Your task to perform on an android device: visit the assistant section in the google photos Image 0: 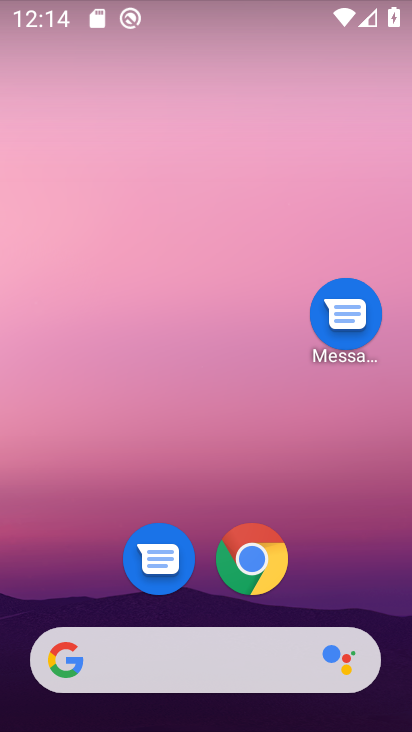
Step 0: drag from (344, 585) to (377, 144)
Your task to perform on an android device: visit the assistant section in the google photos Image 1: 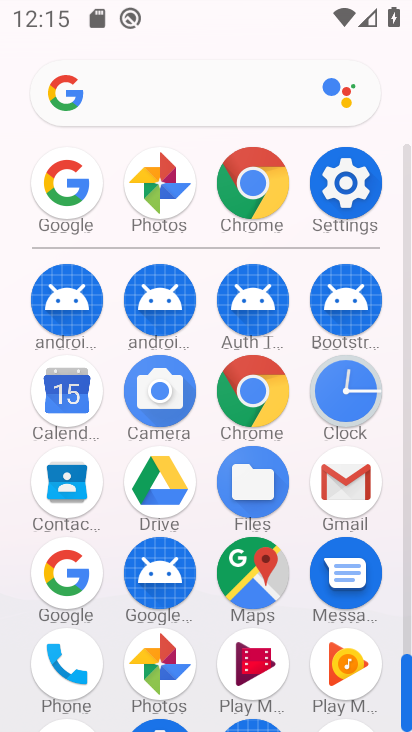
Step 1: click (169, 198)
Your task to perform on an android device: visit the assistant section in the google photos Image 2: 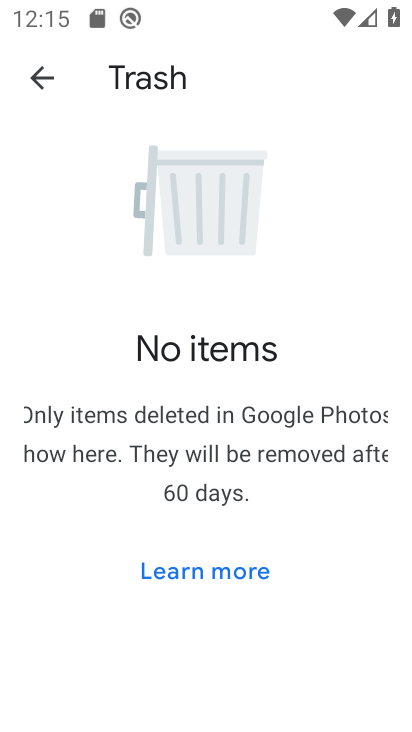
Step 2: press back button
Your task to perform on an android device: visit the assistant section in the google photos Image 3: 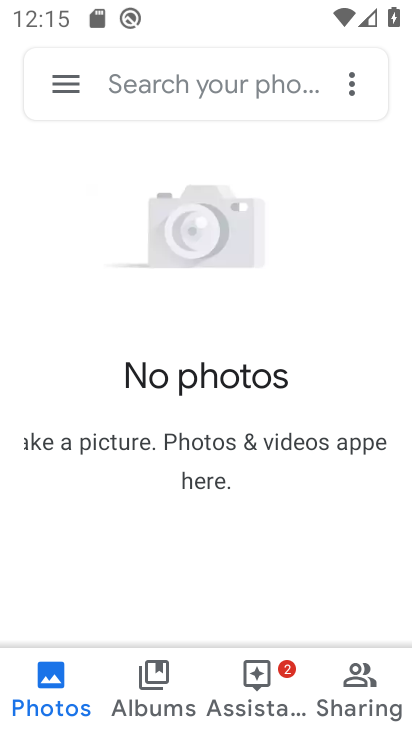
Step 3: click (248, 699)
Your task to perform on an android device: visit the assistant section in the google photos Image 4: 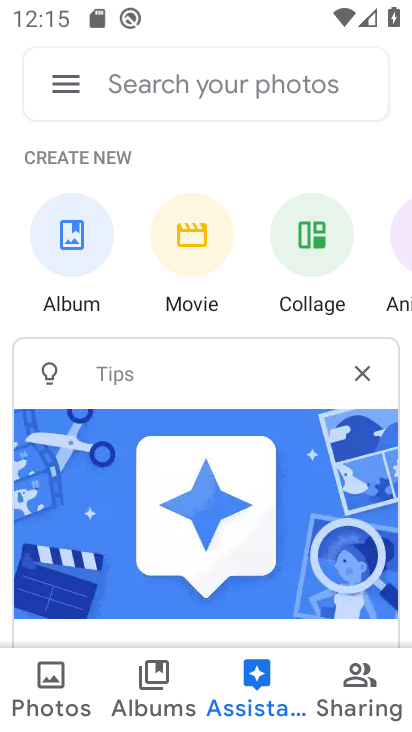
Step 4: task complete